Your task to perform on an android device: Check the news Image 0: 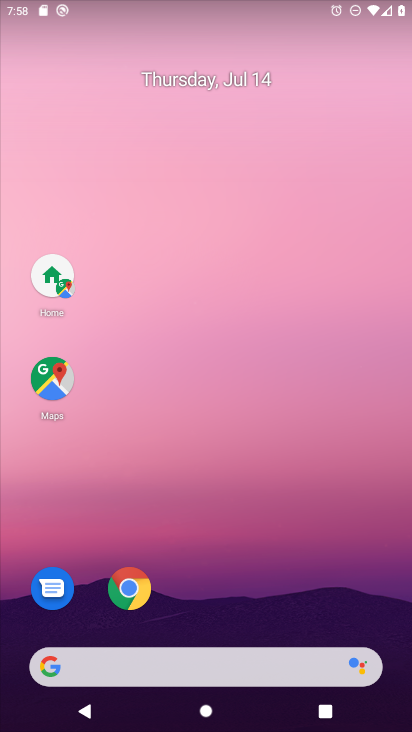
Step 0: click (120, 654)
Your task to perform on an android device: Check the news Image 1: 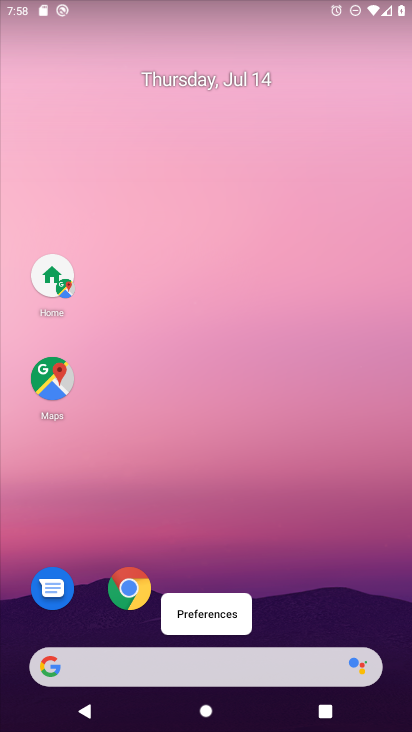
Step 1: click (113, 664)
Your task to perform on an android device: Check the news Image 2: 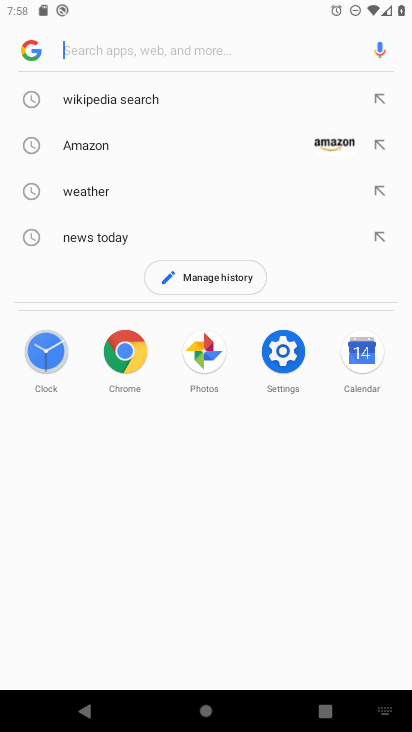
Step 2: type "Check the news"
Your task to perform on an android device: Check the news Image 3: 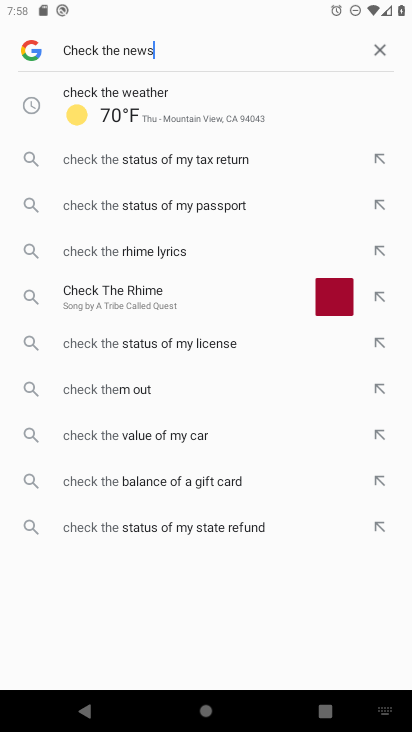
Step 3: type ""
Your task to perform on an android device: Check the news Image 4: 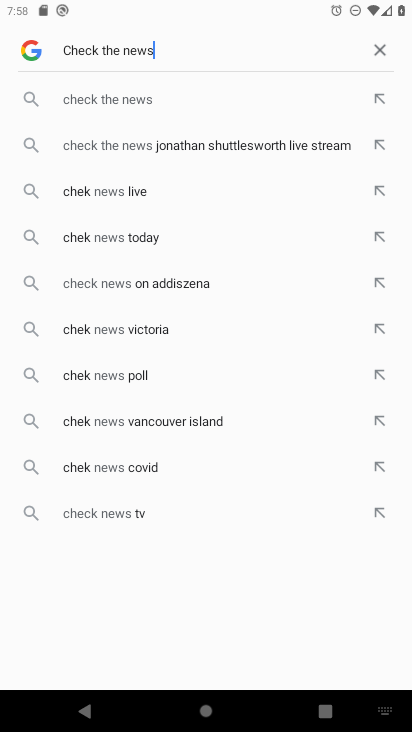
Step 4: click (150, 107)
Your task to perform on an android device: Check the news Image 5: 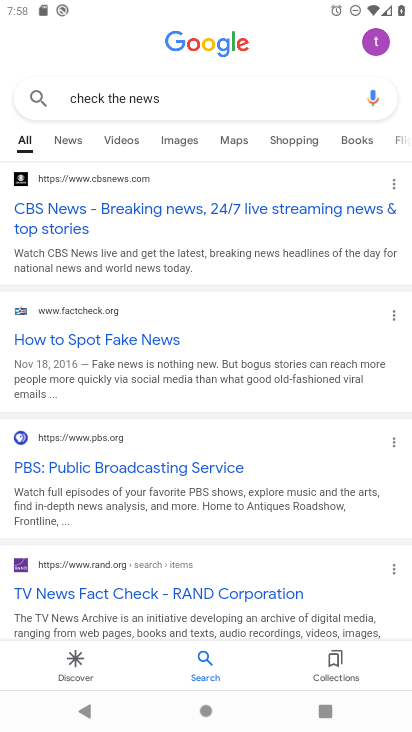
Step 5: task complete